Your task to perform on an android device: turn off data saver in the chrome app Image 0: 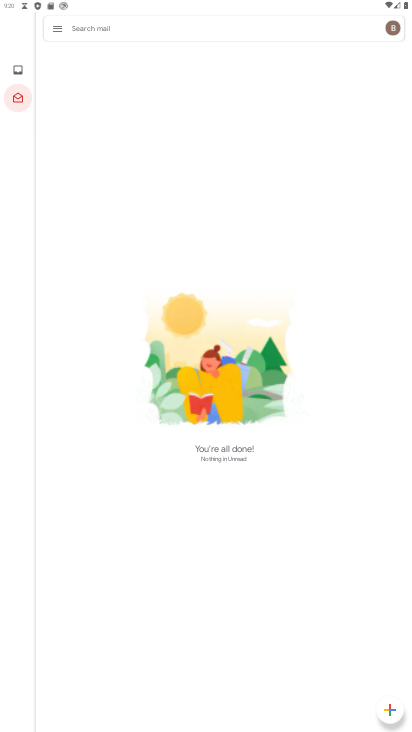
Step 0: press home button
Your task to perform on an android device: turn off data saver in the chrome app Image 1: 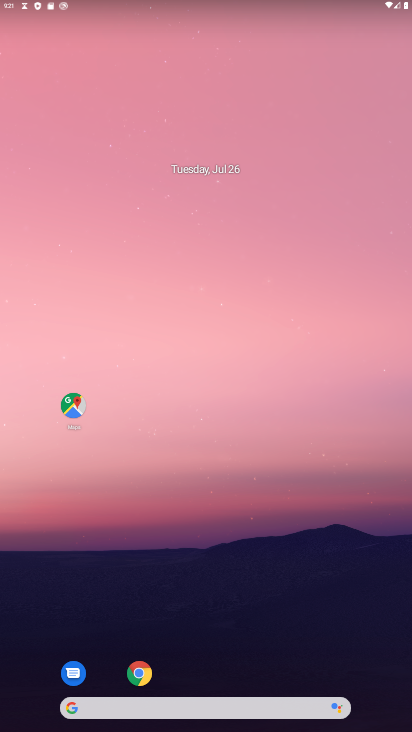
Step 1: click (138, 674)
Your task to perform on an android device: turn off data saver in the chrome app Image 2: 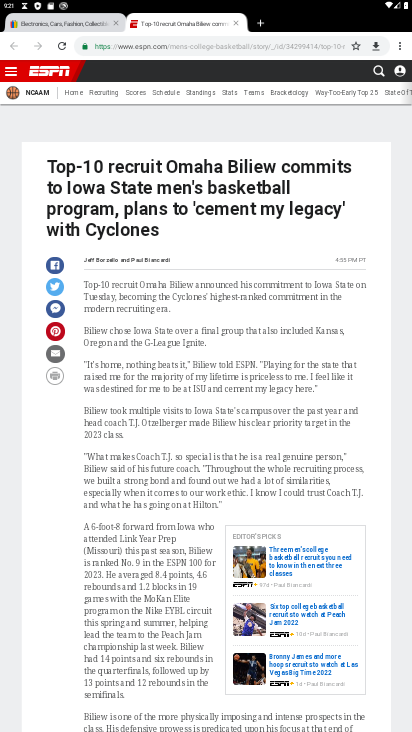
Step 2: click (400, 46)
Your task to perform on an android device: turn off data saver in the chrome app Image 3: 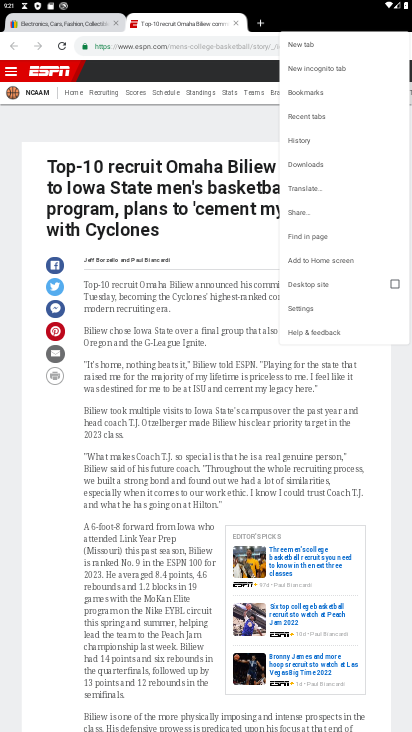
Step 3: click (307, 308)
Your task to perform on an android device: turn off data saver in the chrome app Image 4: 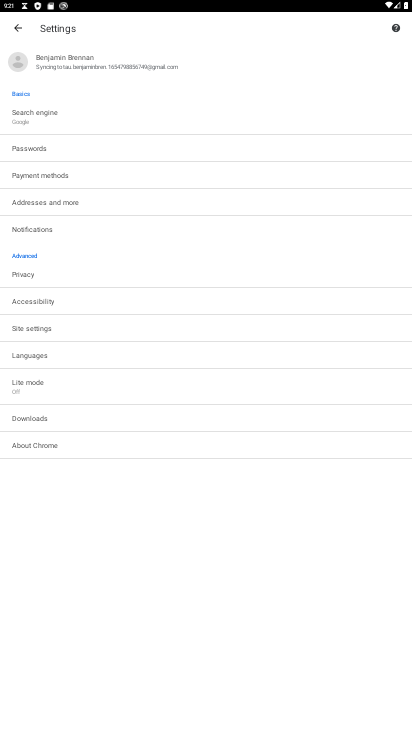
Step 4: click (40, 383)
Your task to perform on an android device: turn off data saver in the chrome app Image 5: 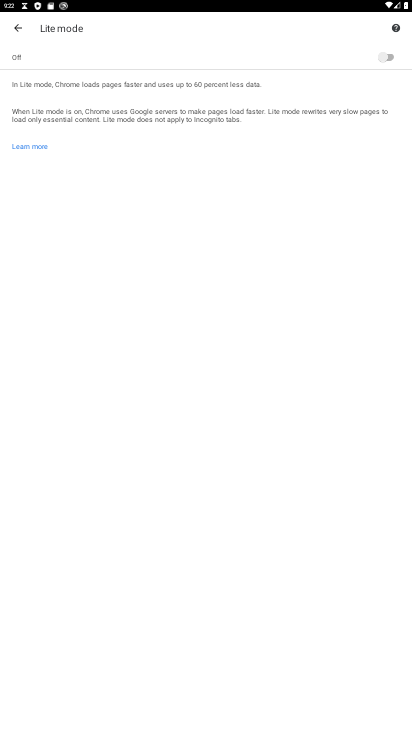
Step 5: task complete